Your task to perform on an android device: Open Chrome and go to settings Image 0: 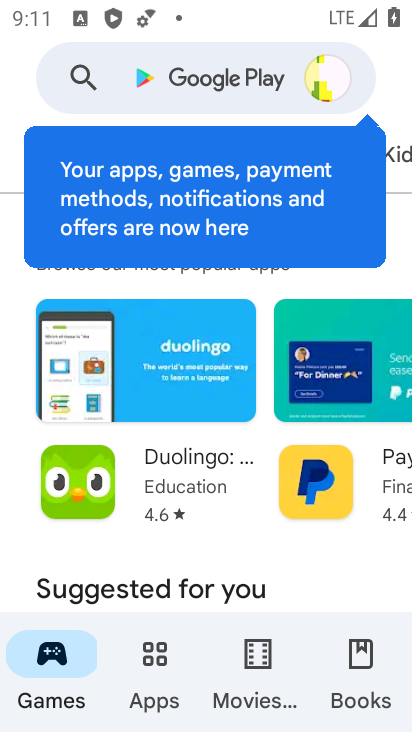
Step 0: press home button
Your task to perform on an android device: Open Chrome and go to settings Image 1: 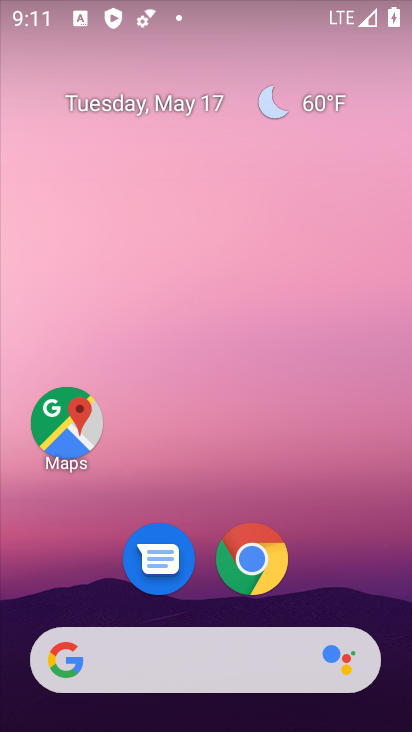
Step 1: click (229, 565)
Your task to perform on an android device: Open Chrome and go to settings Image 2: 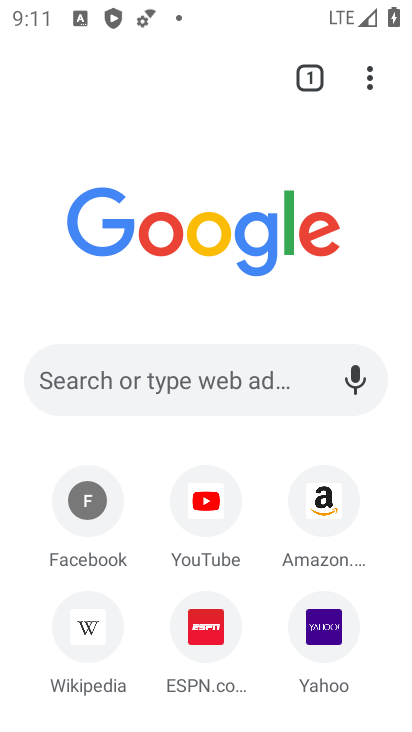
Step 2: task complete